Your task to perform on an android device: Open battery settings Image 0: 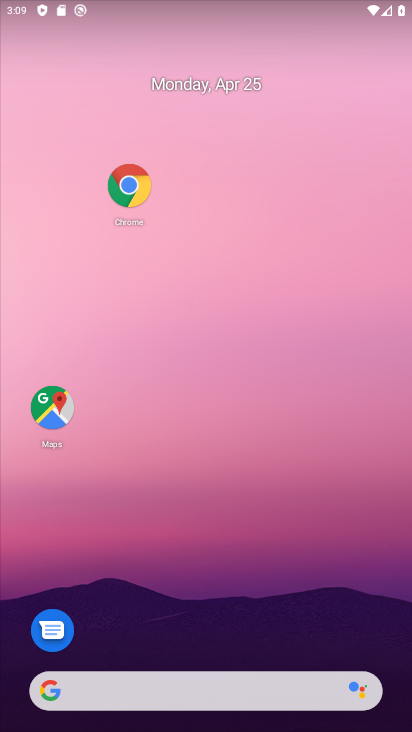
Step 0: drag from (155, 646) to (215, 141)
Your task to perform on an android device: Open battery settings Image 1: 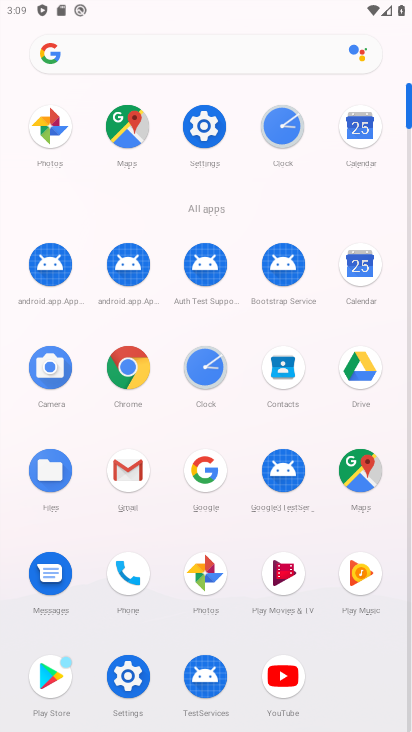
Step 1: click (204, 129)
Your task to perform on an android device: Open battery settings Image 2: 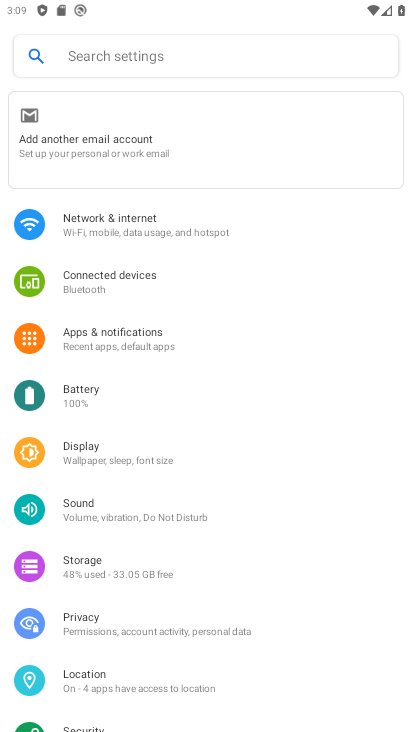
Step 2: click (89, 397)
Your task to perform on an android device: Open battery settings Image 3: 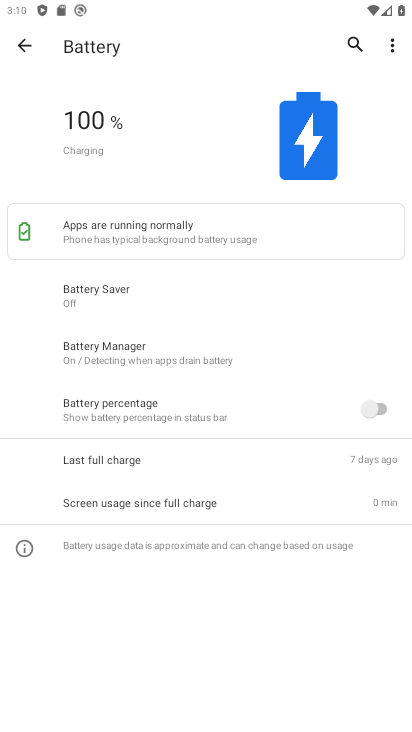
Step 3: task complete